Your task to perform on an android device: choose inbox layout in the gmail app Image 0: 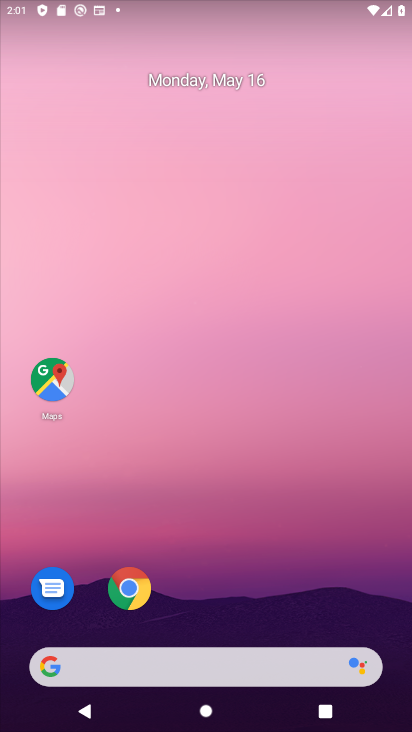
Step 0: drag from (224, 707) to (207, 197)
Your task to perform on an android device: choose inbox layout in the gmail app Image 1: 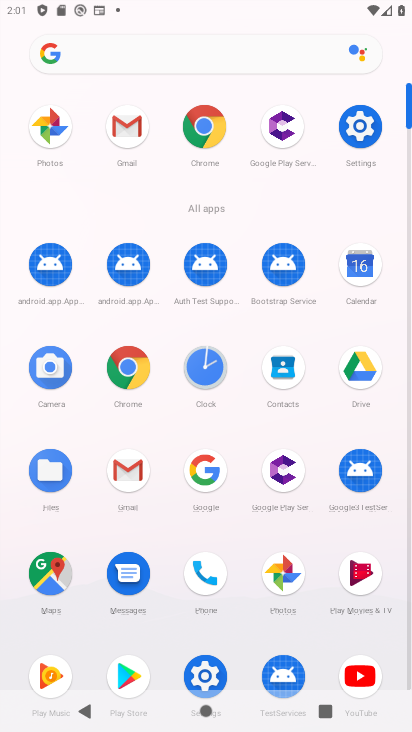
Step 1: click (128, 470)
Your task to perform on an android device: choose inbox layout in the gmail app Image 2: 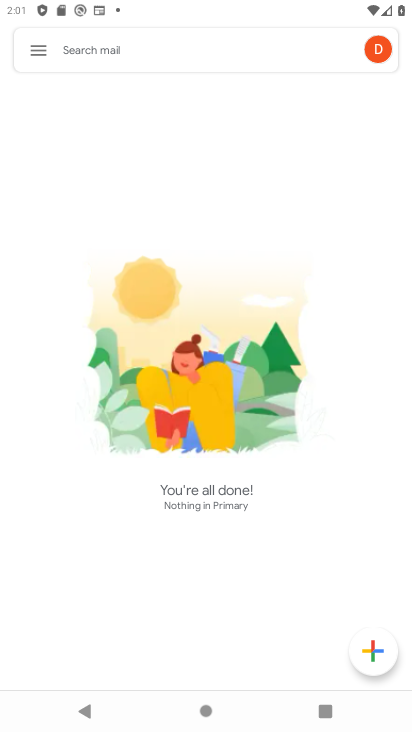
Step 2: click (38, 46)
Your task to perform on an android device: choose inbox layout in the gmail app Image 3: 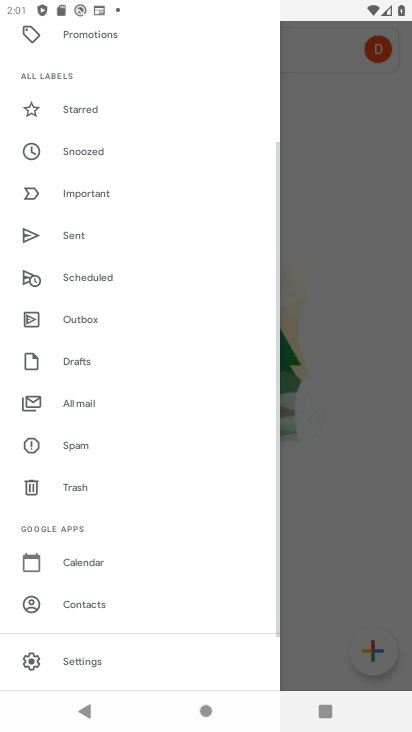
Step 3: click (70, 653)
Your task to perform on an android device: choose inbox layout in the gmail app Image 4: 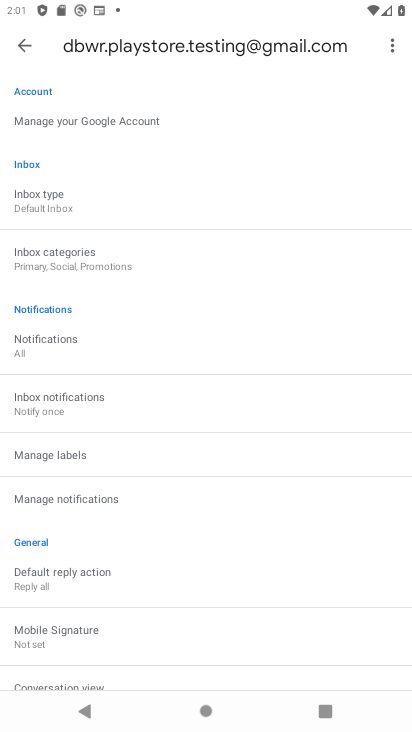
Step 4: click (57, 202)
Your task to perform on an android device: choose inbox layout in the gmail app Image 5: 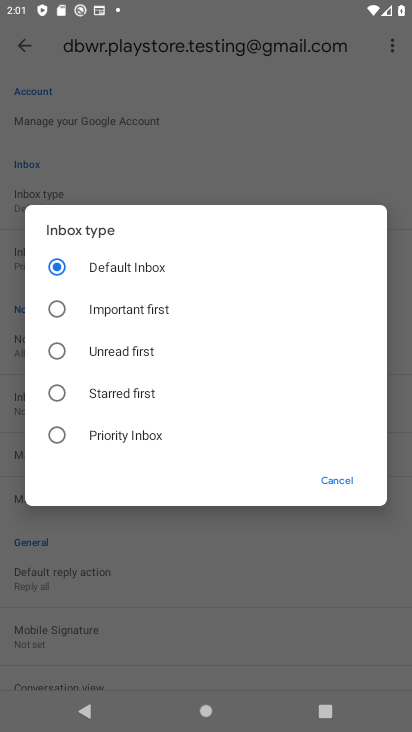
Step 5: click (53, 310)
Your task to perform on an android device: choose inbox layout in the gmail app Image 6: 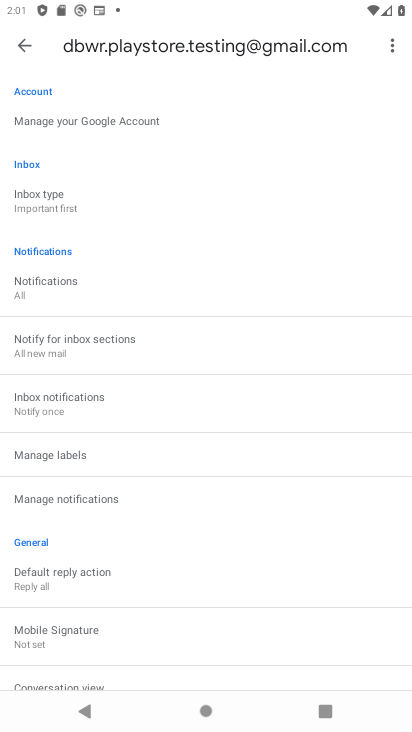
Step 6: task complete